Your task to perform on an android device: Go to Yahoo.com Image 0: 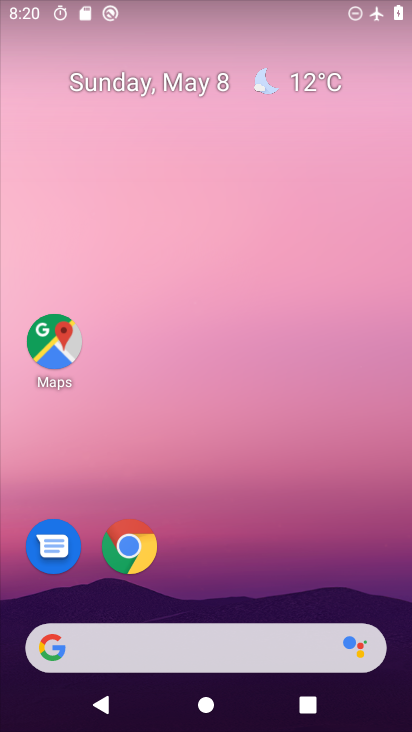
Step 0: drag from (317, 51) to (159, 651)
Your task to perform on an android device: Go to Yahoo.com Image 1: 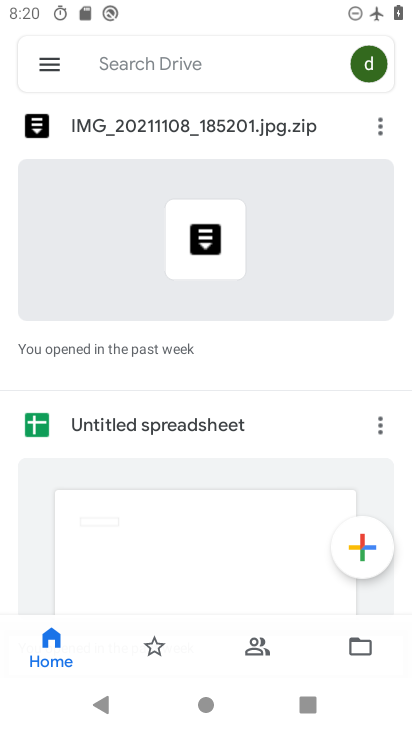
Step 1: click (223, 56)
Your task to perform on an android device: Go to Yahoo.com Image 2: 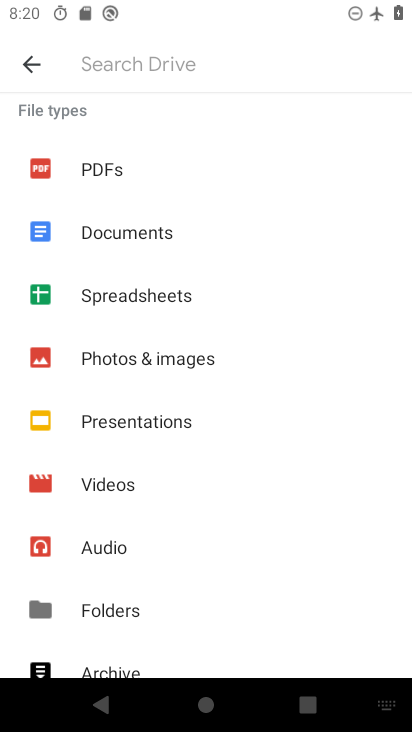
Step 2: press home button
Your task to perform on an android device: Go to Yahoo.com Image 3: 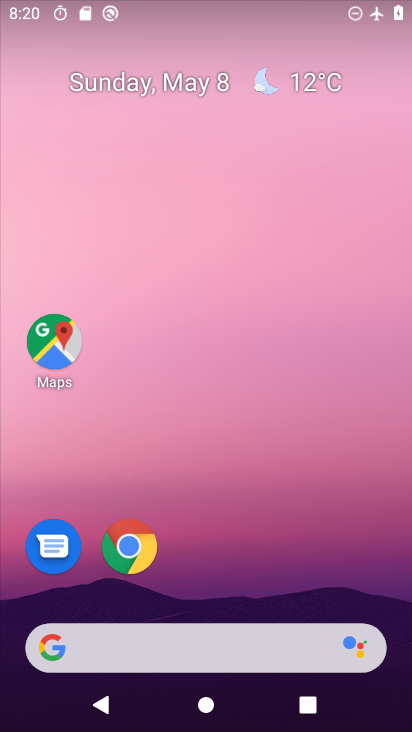
Step 3: click (275, 657)
Your task to perform on an android device: Go to Yahoo.com Image 4: 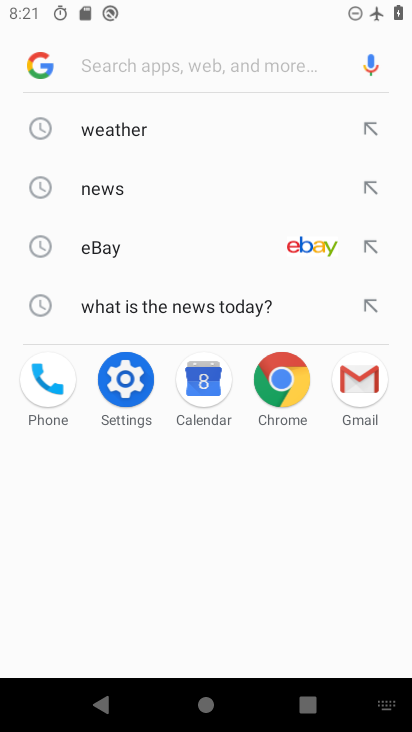
Step 4: type "yahoo.com"
Your task to perform on an android device: Go to Yahoo.com Image 5: 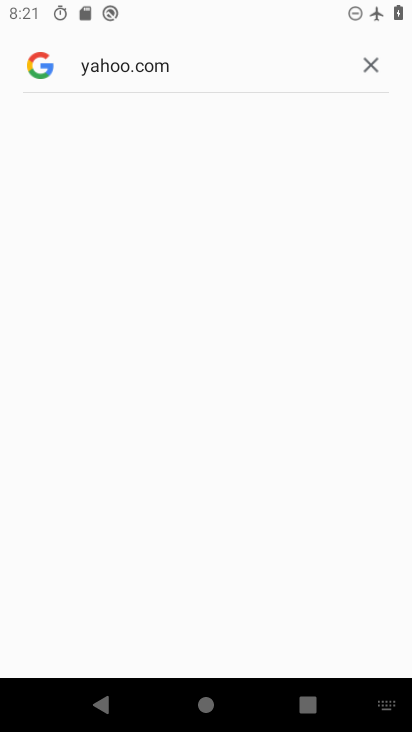
Step 5: task complete